Your task to perform on an android device: check the backup settings in the google photos Image 0: 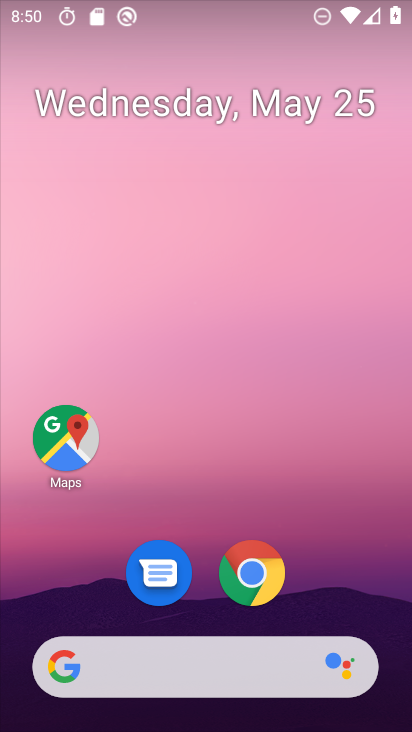
Step 0: drag from (388, 704) to (321, 296)
Your task to perform on an android device: check the backup settings in the google photos Image 1: 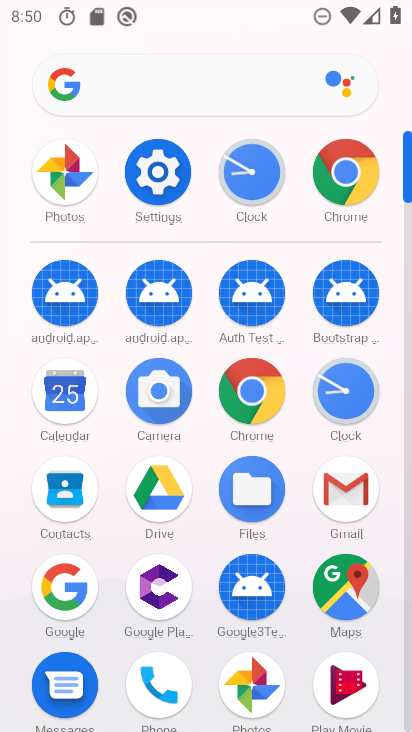
Step 1: click (249, 676)
Your task to perform on an android device: check the backup settings in the google photos Image 2: 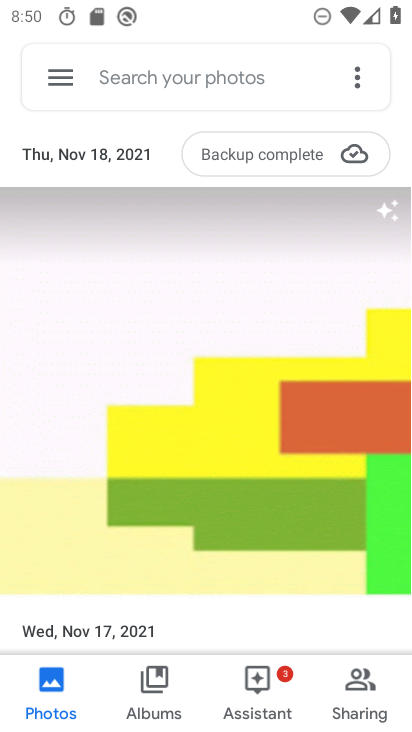
Step 2: click (48, 70)
Your task to perform on an android device: check the backup settings in the google photos Image 3: 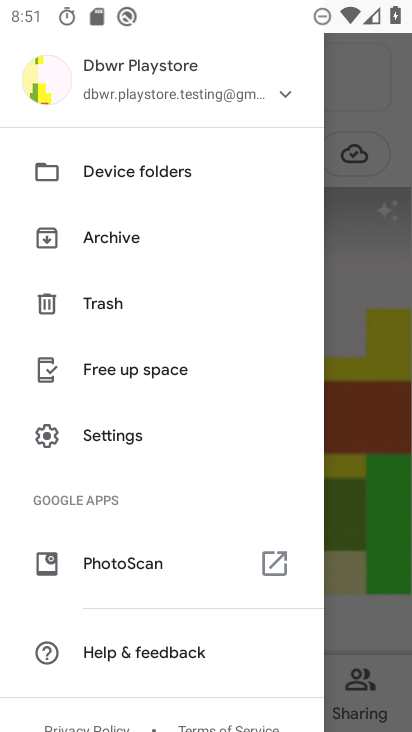
Step 3: click (113, 433)
Your task to perform on an android device: check the backup settings in the google photos Image 4: 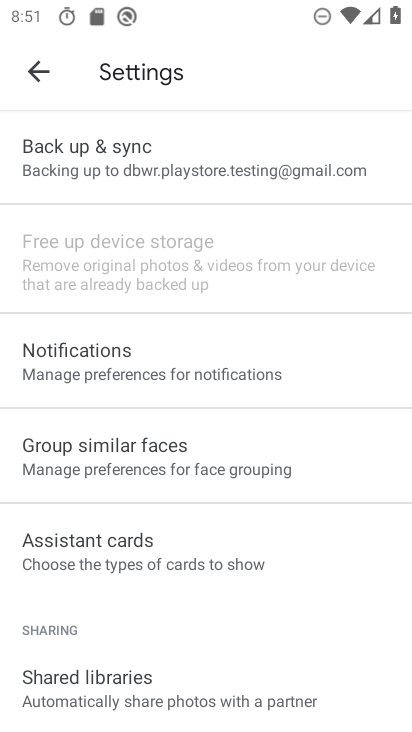
Step 4: click (94, 159)
Your task to perform on an android device: check the backup settings in the google photos Image 5: 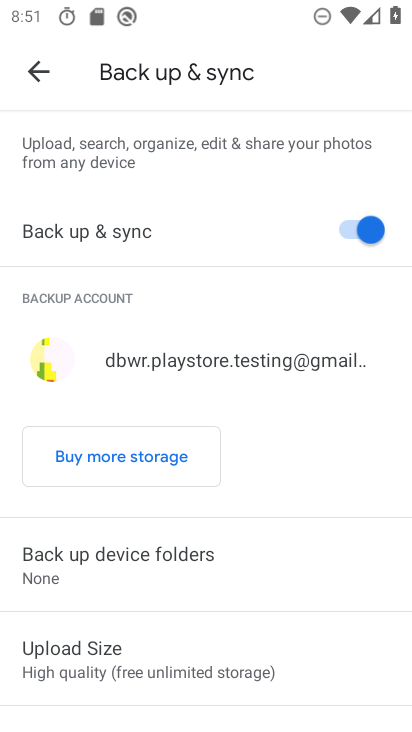
Step 5: task complete